Your task to perform on an android device: clear all cookies in the chrome app Image 0: 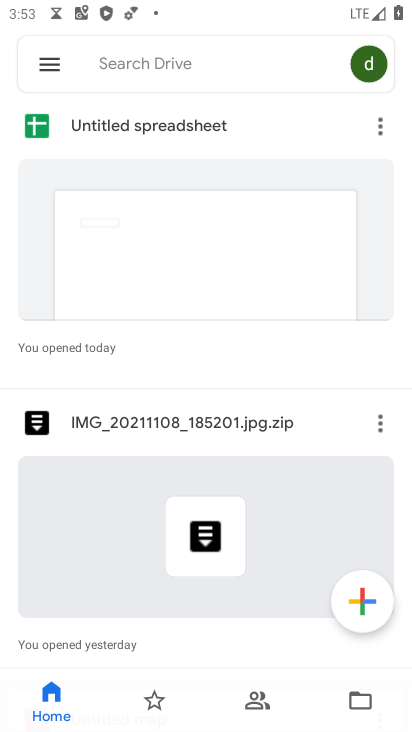
Step 0: press home button
Your task to perform on an android device: clear all cookies in the chrome app Image 1: 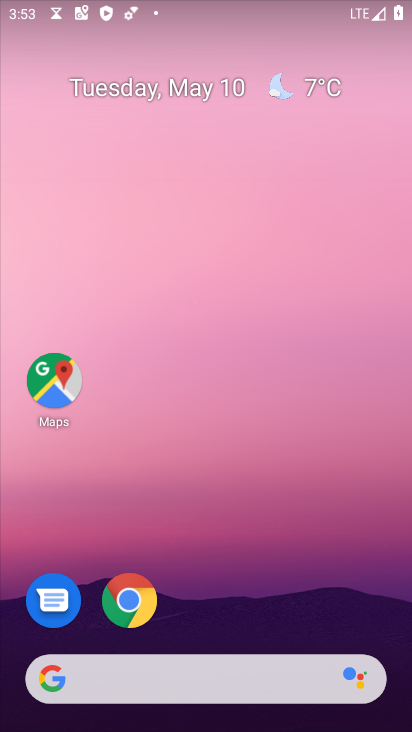
Step 1: click (126, 600)
Your task to perform on an android device: clear all cookies in the chrome app Image 2: 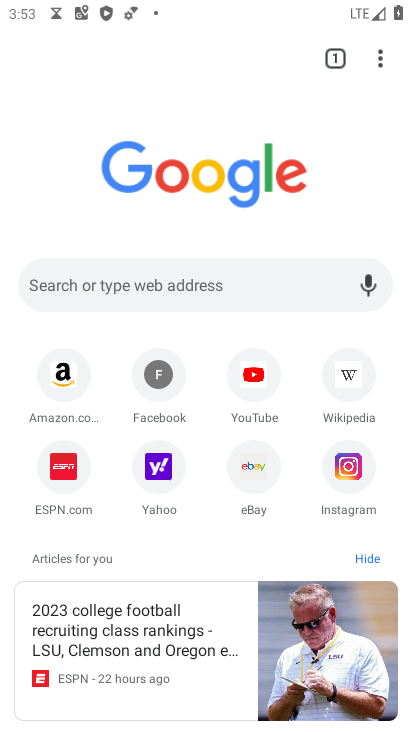
Step 2: click (382, 53)
Your task to perform on an android device: clear all cookies in the chrome app Image 3: 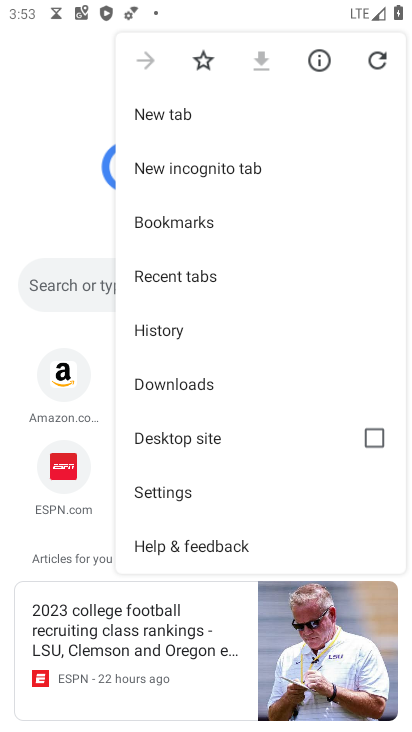
Step 3: click (215, 498)
Your task to perform on an android device: clear all cookies in the chrome app Image 4: 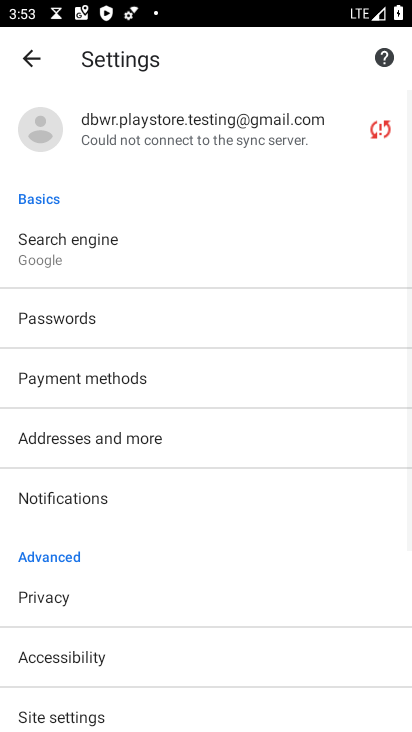
Step 4: drag from (129, 589) to (263, 279)
Your task to perform on an android device: clear all cookies in the chrome app Image 5: 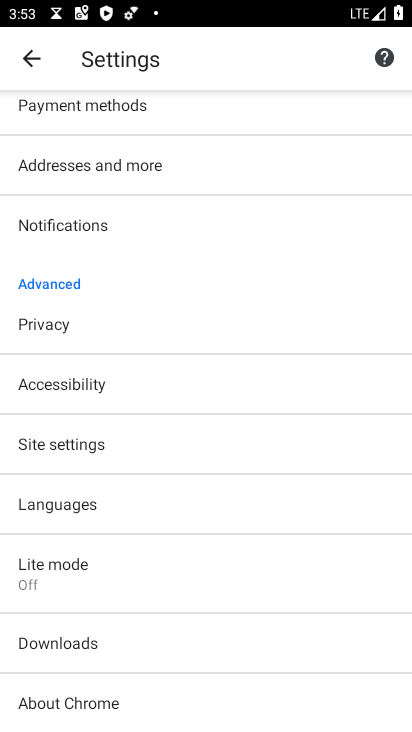
Step 5: click (169, 439)
Your task to perform on an android device: clear all cookies in the chrome app Image 6: 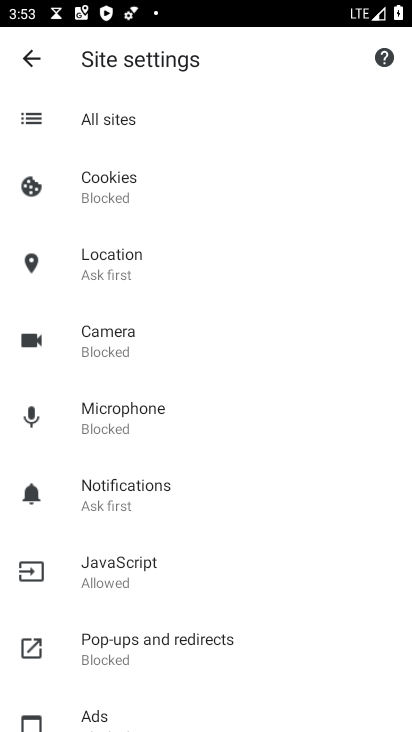
Step 6: click (234, 193)
Your task to perform on an android device: clear all cookies in the chrome app Image 7: 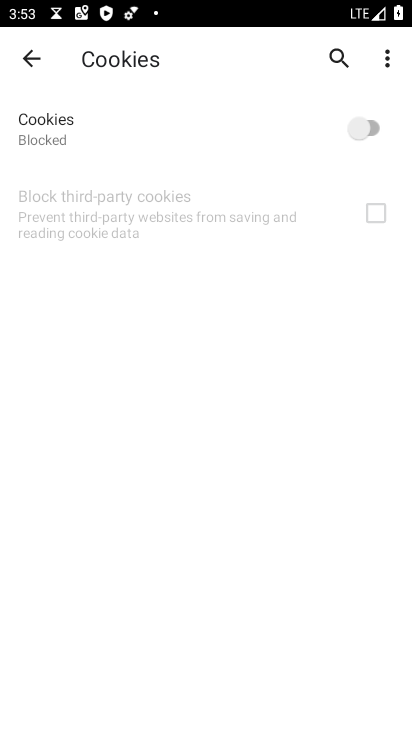
Step 7: task complete